Your task to perform on an android device: Open maps Image 0: 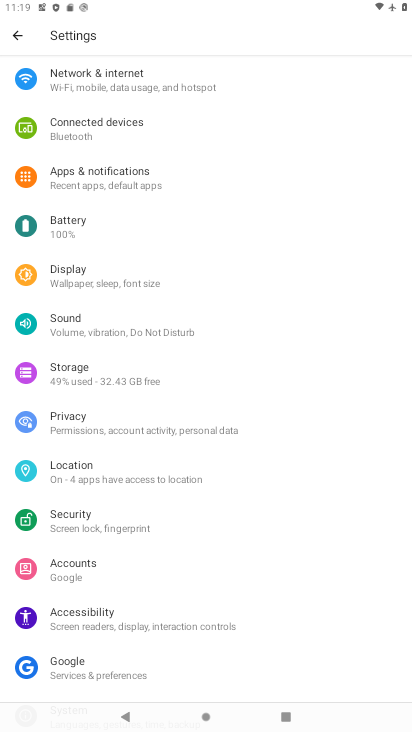
Step 0: press home button
Your task to perform on an android device: Open maps Image 1: 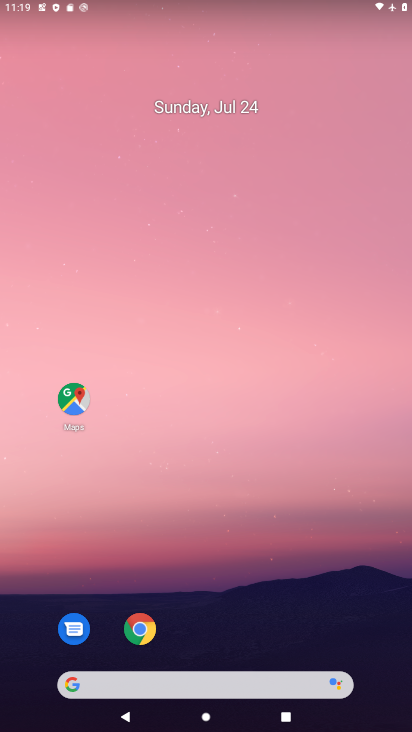
Step 1: click (76, 399)
Your task to perform on an android device: Open maps Image 2: 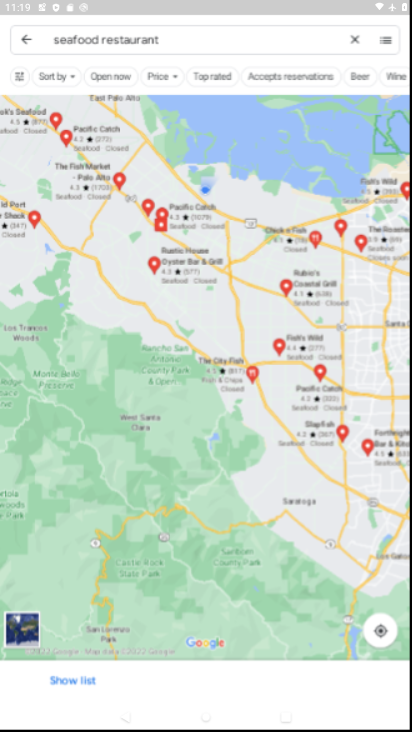
Step 2: task complete